Your task to perform on an android device: Turn on the flashlight Image 0: 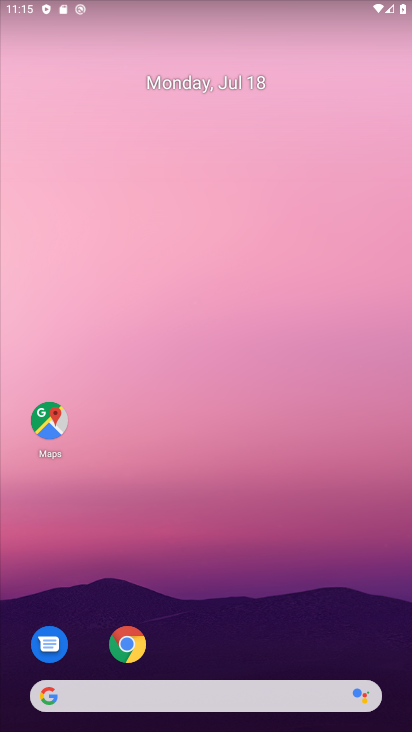
Step 0: drag from (281, 10) to (255, 549)
Your task to perform on an android device: Turn on the flashlight Image 1: 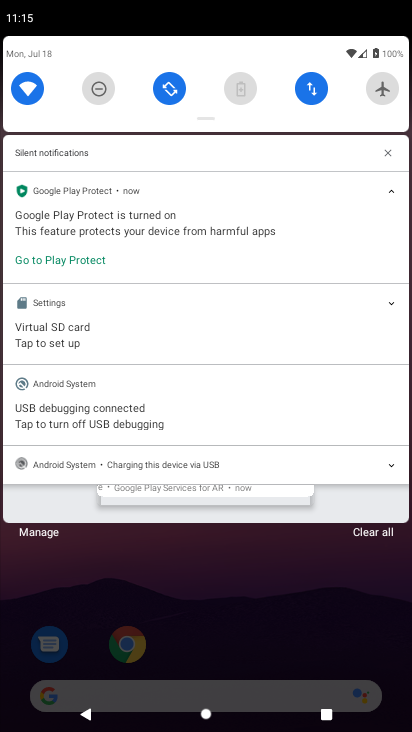
Step 1: task complete